Your task to perform on an android device: toggle airplane mode Image 0: 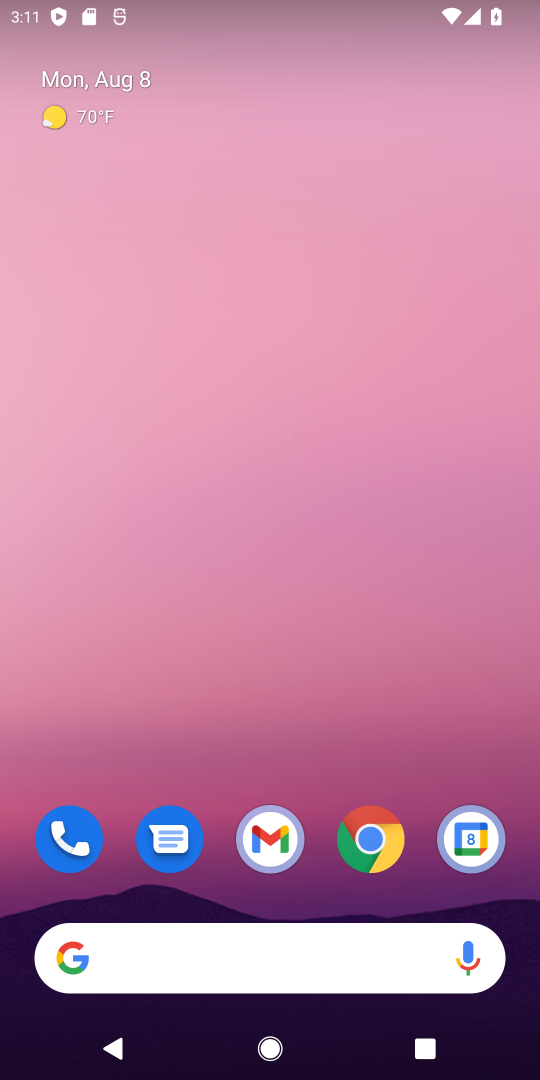
Step 0: press home button
Your task to perform on an android device: toggle airplane mode Image 1: 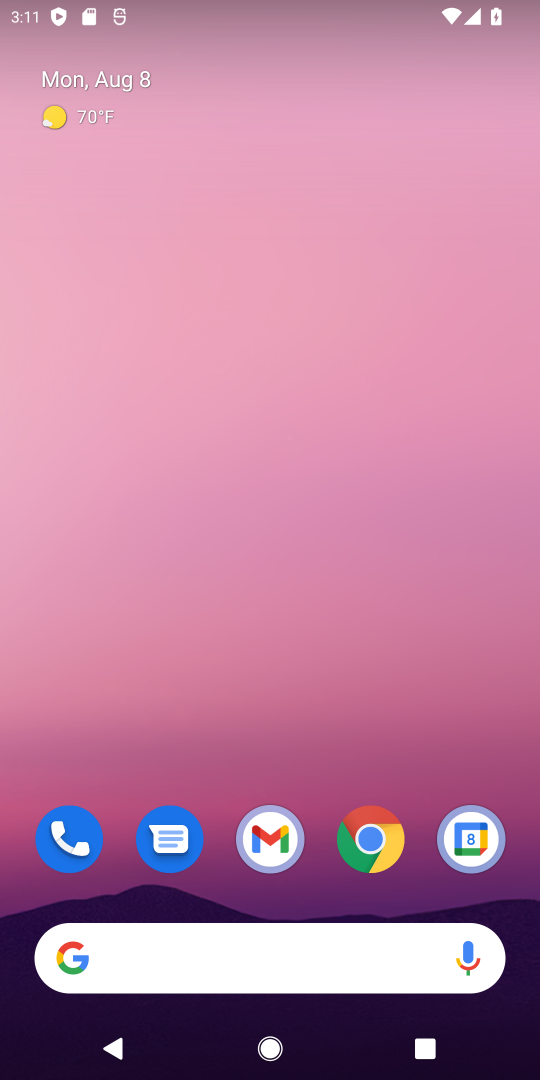
Step 1: drag from (443, 669) to (495, 191)
Your task to perform on an android device: toggle airplane mode Image 2: 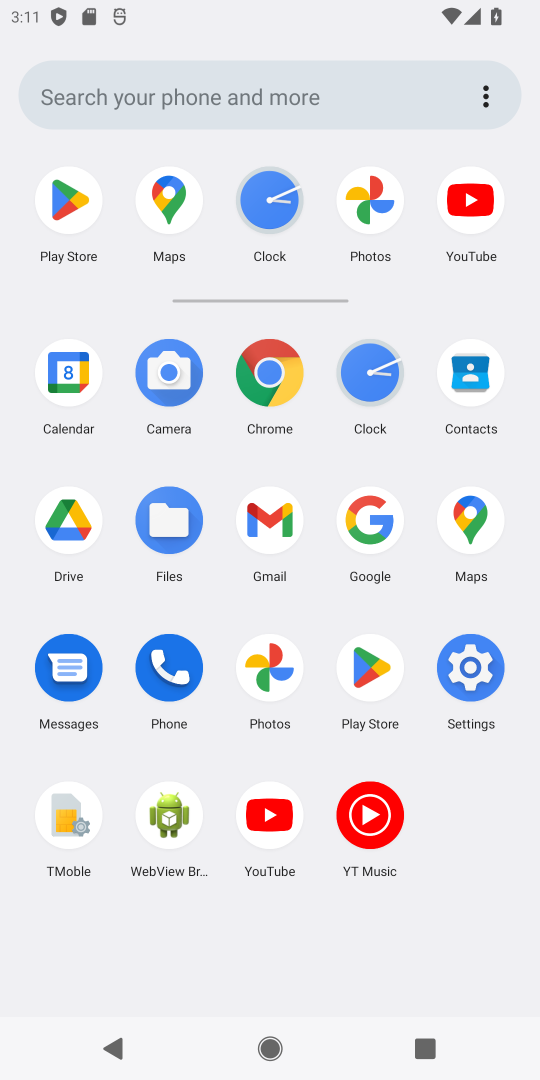
Step 2: click (474, 669)
Your task to perform on an android device: toggle airplane mode Image 3: 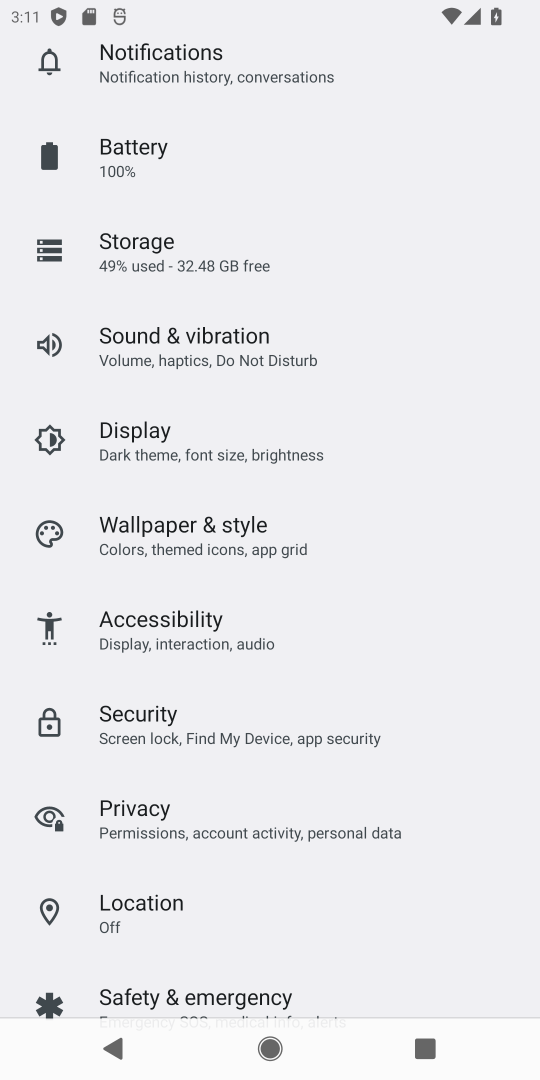
Step 3: drag from (454, 702) to (458, 407)
Your task to perform on an android device: toggle airplane mode Image 4: 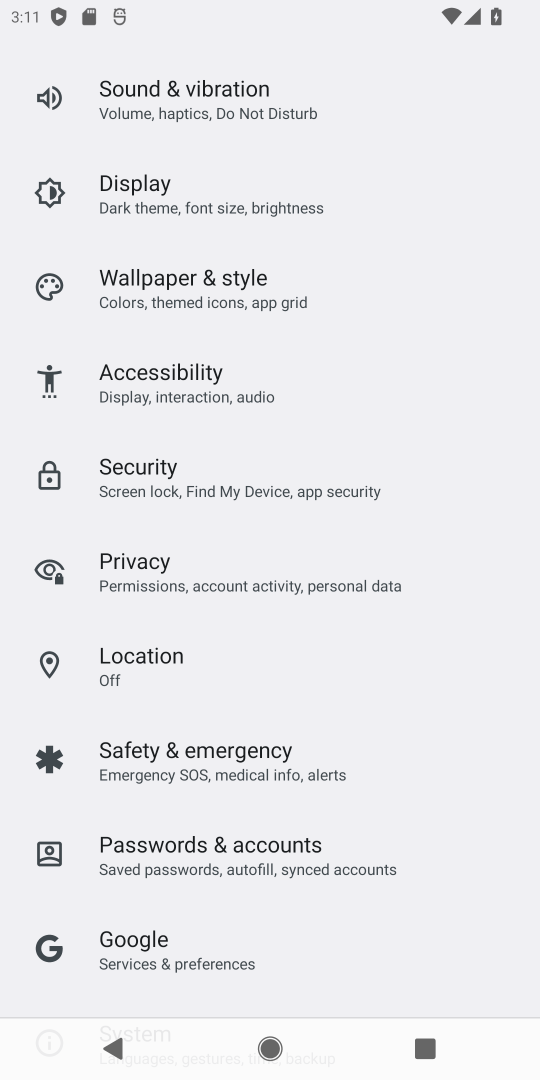
Step 4: drag from (455, 697) to (466, 426)
Your task to perform on an android device: toggle airplane mode Image 5: 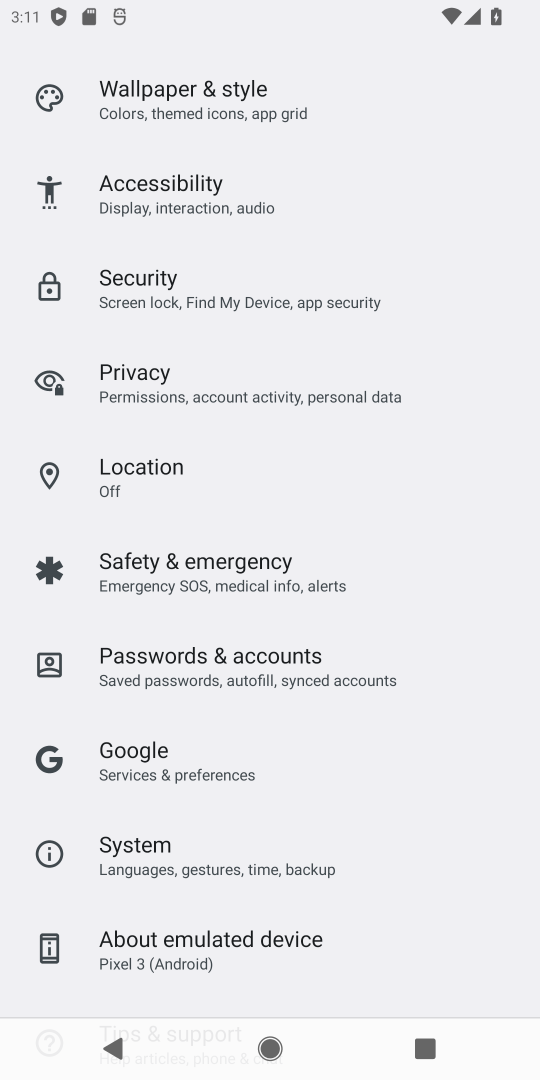
Step 5: drag from (470, 697) to (487, 443)
Your task to perform on an android device: toggle airplane mode Image 6: 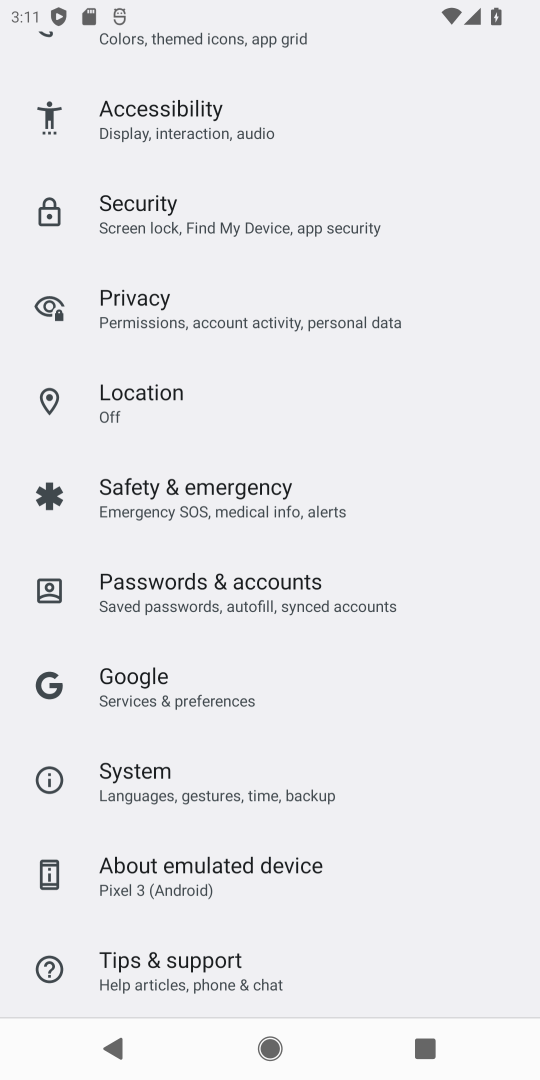
Step 6: drag from (446, 751) to (465, 434)
Your task to perform on an android device: toggle airplane mode Image 7: 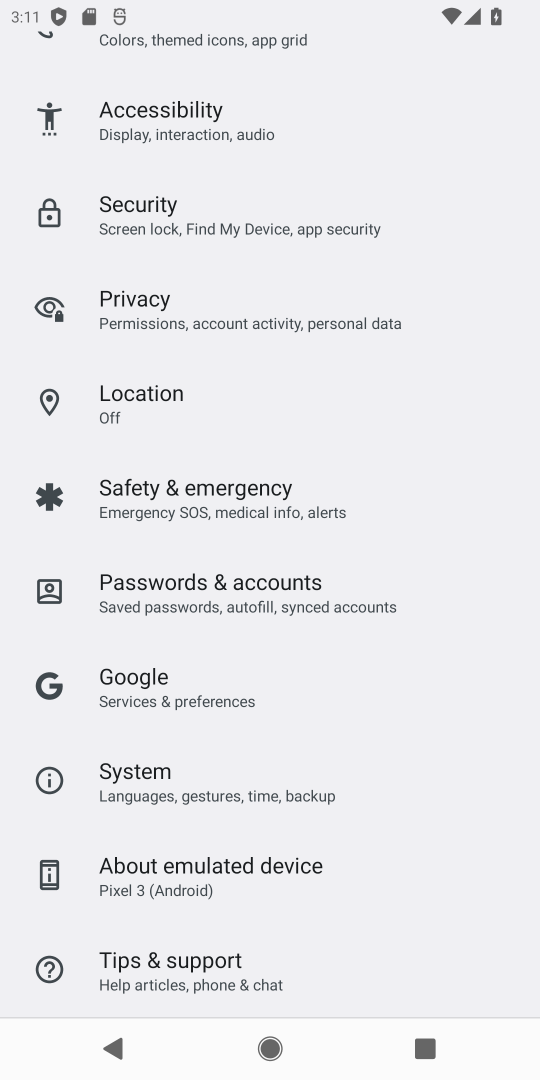
Step 7: drag from (466, 327) to (461, 588)
Your task to perform on an android device: toggle airplane mode Image 8: 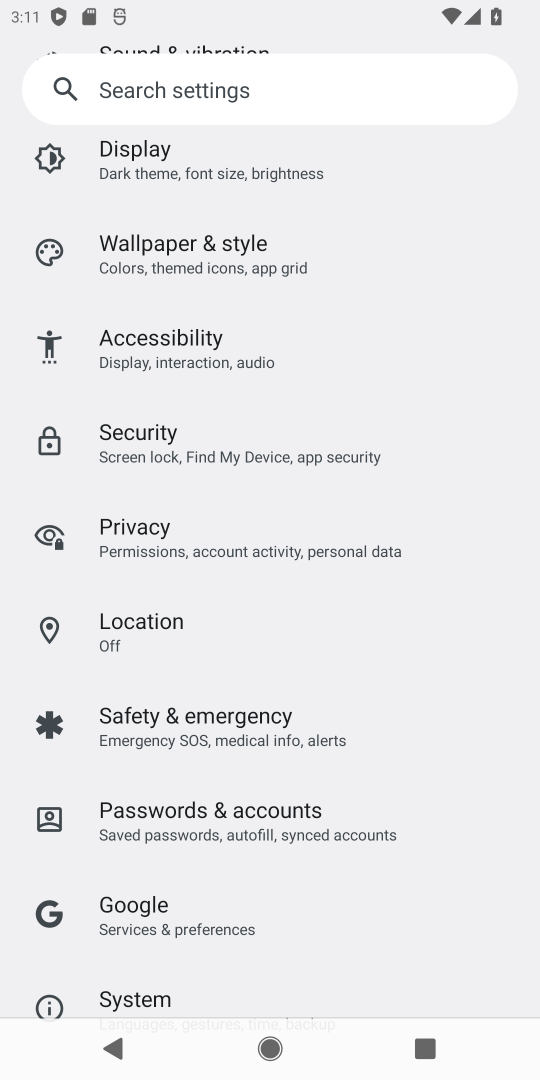
Step 8: drag from (448, 269) to (455, 548)
Your task to perform on an android device: toggle airplane mode Image 9: 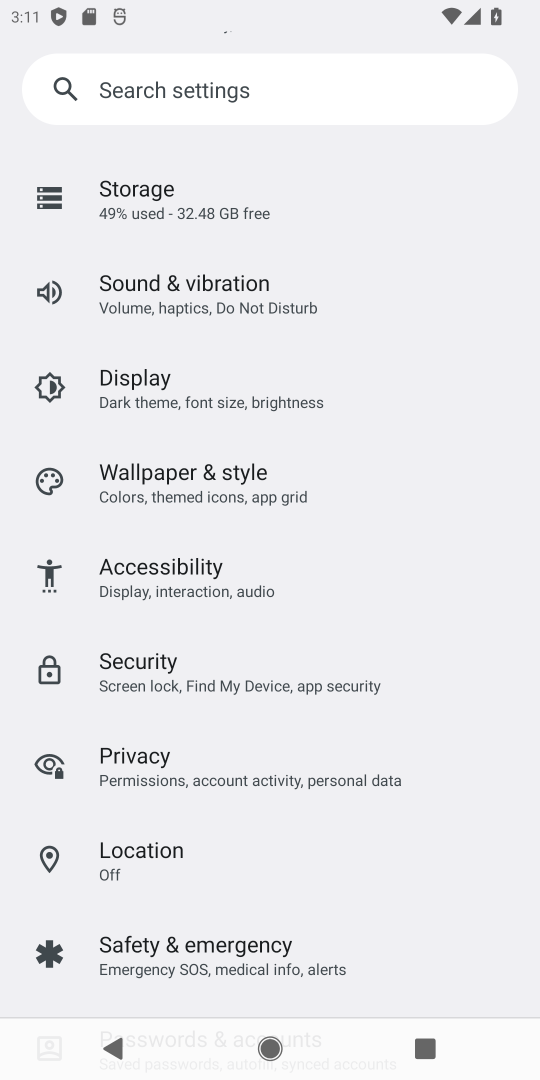
Step 9: drag from (439, 241) to (431, 590)
Your task to perform on an android device: toggle airplane mode Image 10: 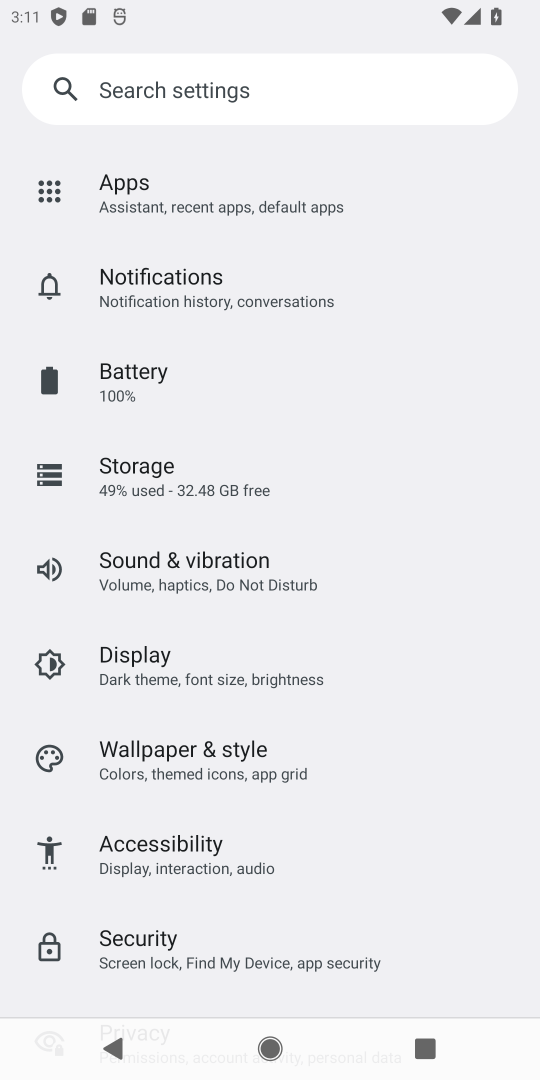
Step 10: drag from (402, 230) to (427, 594)
Your task to perform on an android device: toggle airplane mode Image 11: 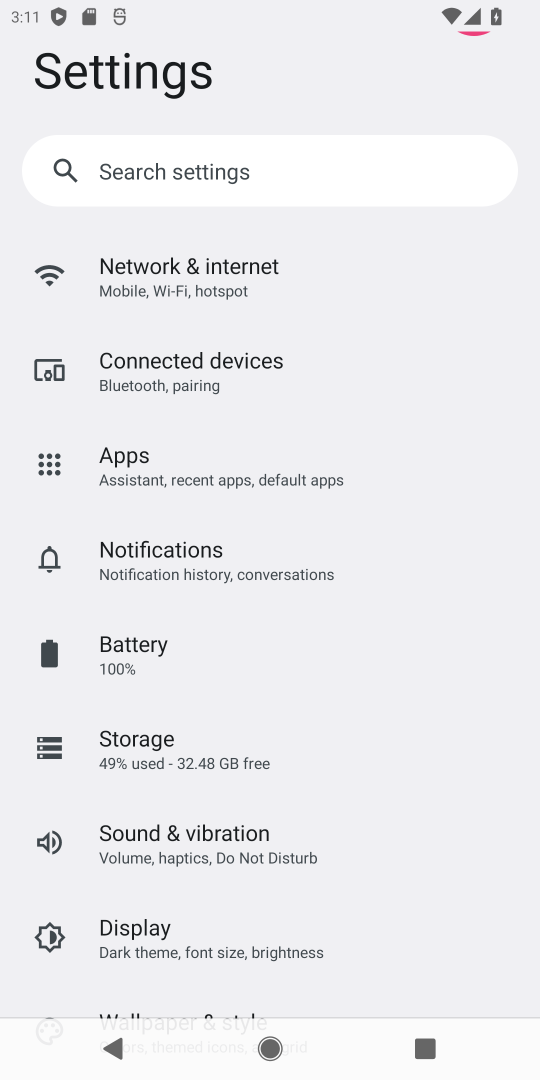
Step 11: click (277, 270)
Your task to perform on an android device: toggle airplane mode Image 12: 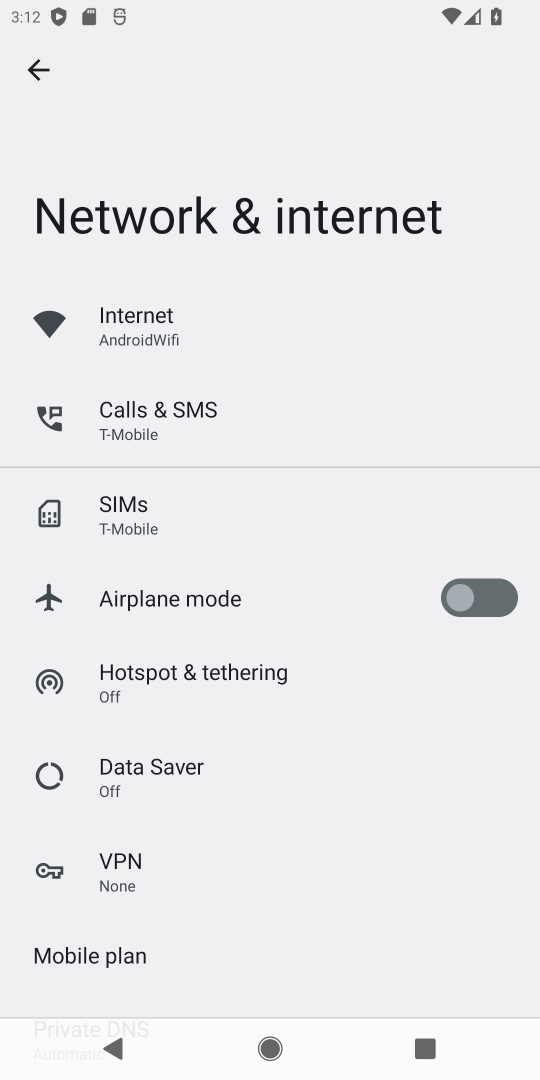
Step 12: click (470, 592)
Your task to perform on an android device: toggle airplane mode Image 13: 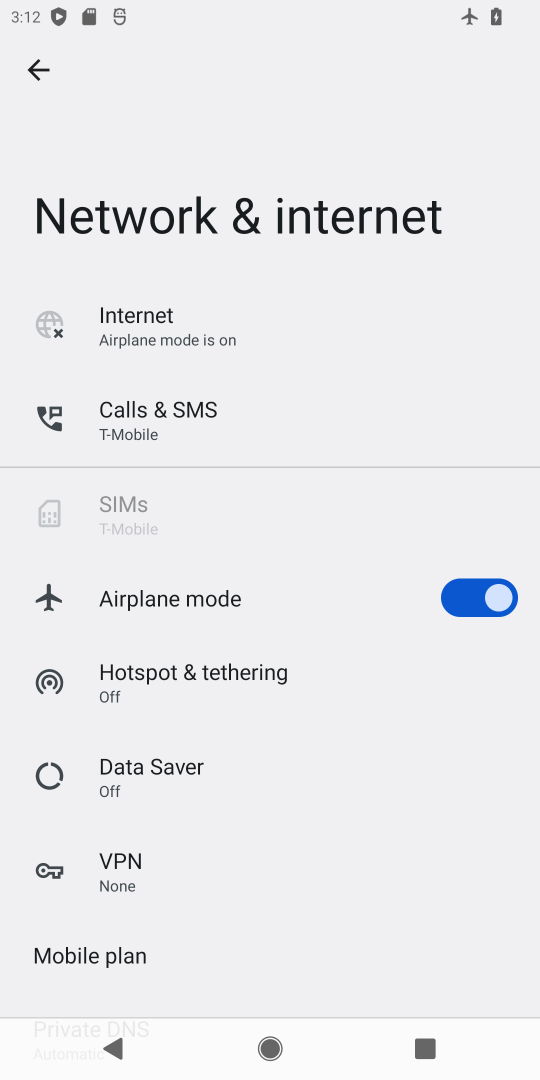
Step 13: task complete